Your task to perform on an android device: Open calendar and show me the fourth week of next month Image 0: 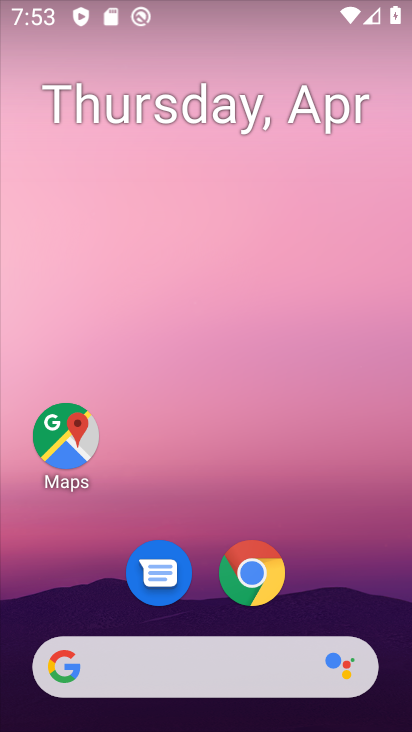
Step 0: drag from (219, 724) to (195, 190)
Your task to perform on an android device: Open calendar and show me the fourth week of next month Image 1: 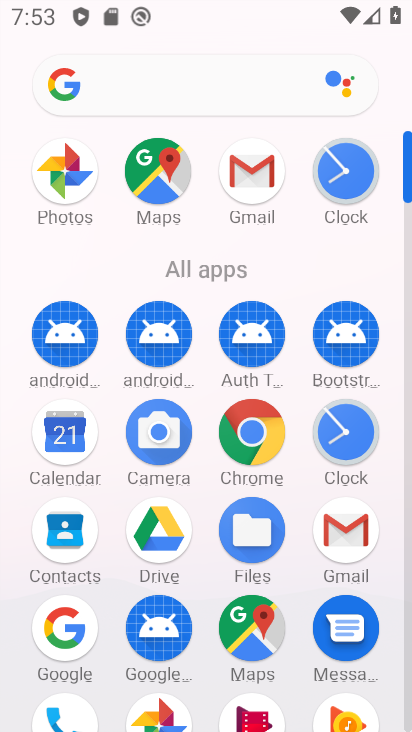
Step 1: click (65, 437)
Your task to perform on an android device: Open calendar and show me the fourth week of next month Image 2: 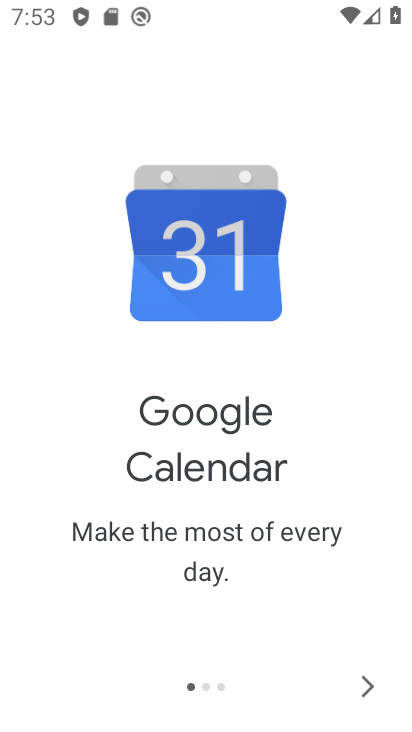
Step 2: click (372, 686)
Your task to perform on an android device: Open calendar and show me the fourth week of next month Image 3: 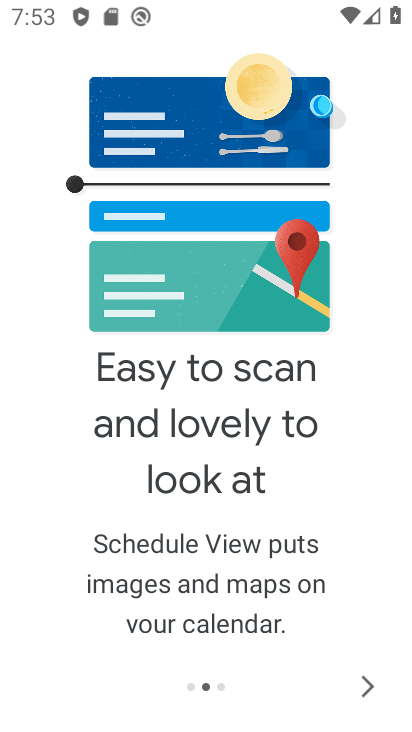
Step 3: click (361, 683)
Your task to perform on an android device: Open calendar and show me the fourth week of next month Image 4: 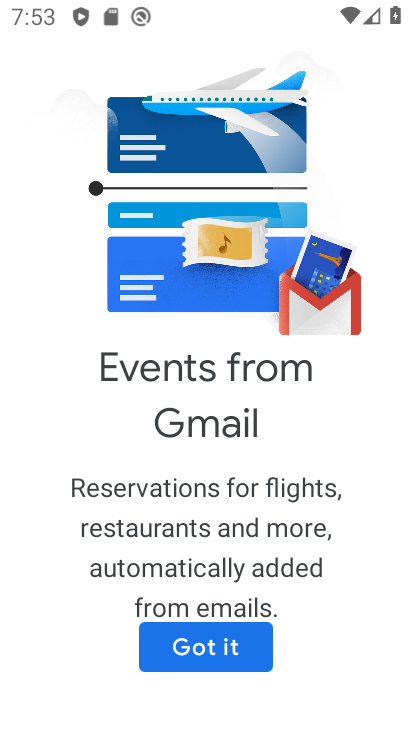
Step 4: click (208, 649)
Your task to perform on an android device: Open calendar and show me the fourth week of next month Image 5: 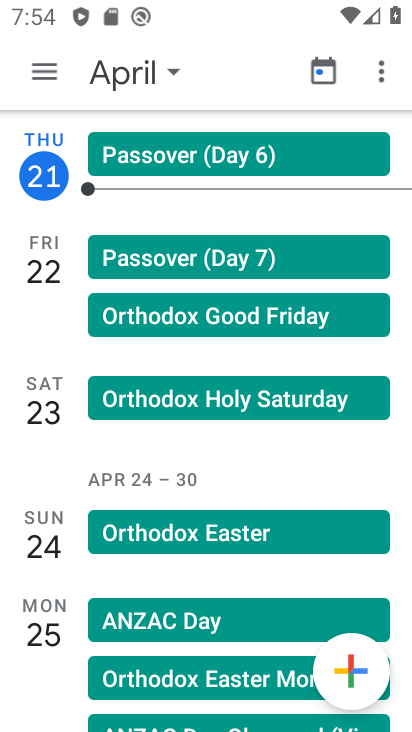
Step 5: click (127, 72)
Your task to perform on an android device: Open calendar and show me the fourth week of next month Image 6: 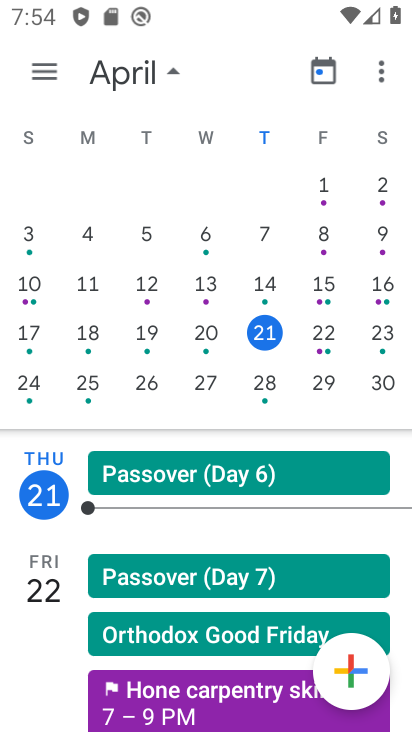
Step 6: drag from (333, 311) to (1, 318)
Your task to perform on an android device: Open calendar and show me the fourth week of next month Image 7: 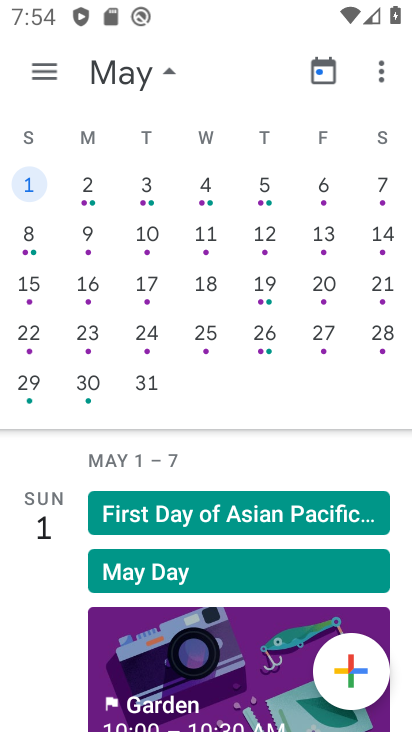
Step 7: click (84, 331)
Your task to perform on an android device: Open calendar and show me the fourth week of next month Image 8: 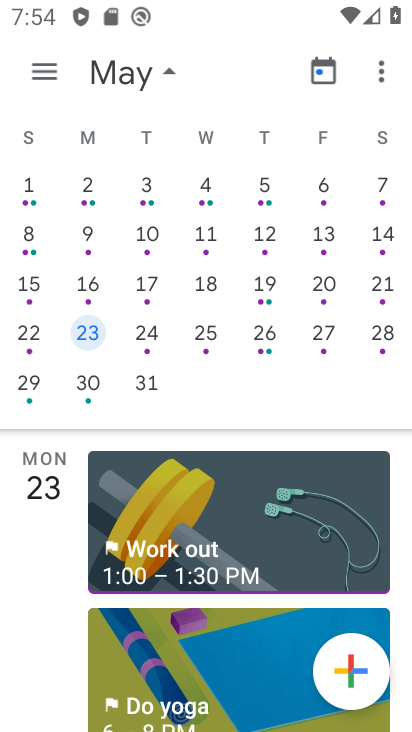
Step 8: task complete